Your task to perform on an android device: Go to settings Image 0: 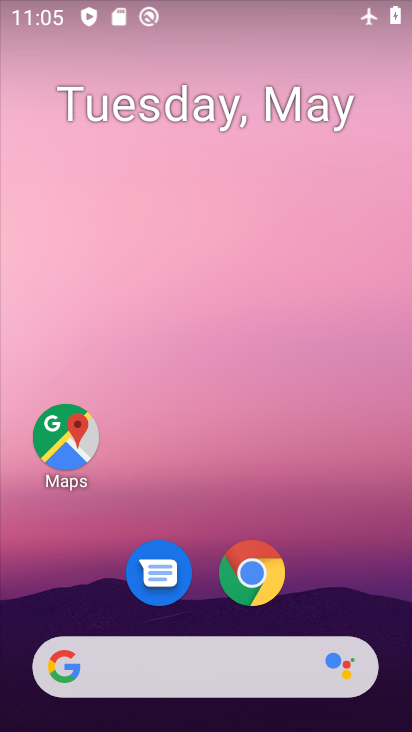
Step 0: drag from (218, 611) to (216, 244)
Your task to perform on an android device: Go to settings Image 1: 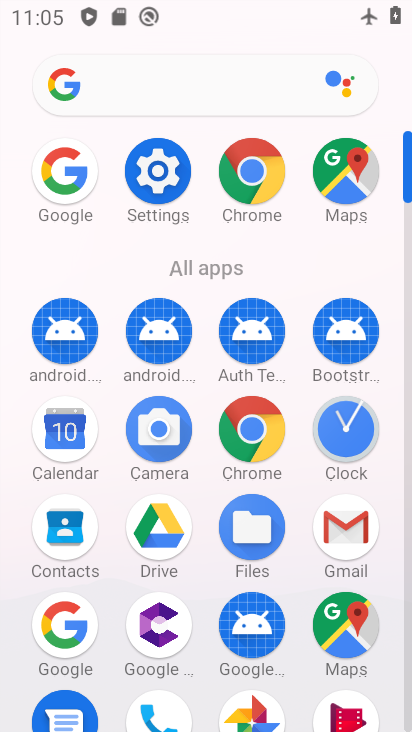
Step 1: click (161, 176)
Your task to perform on an android device: Go to settings Image 2: 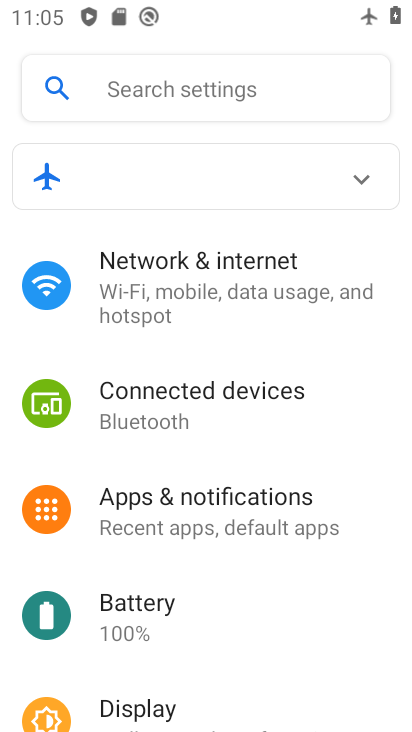
Step 2: task complete